Your task to perform on an android device: Open Chrome and go to the settings page Image 0: 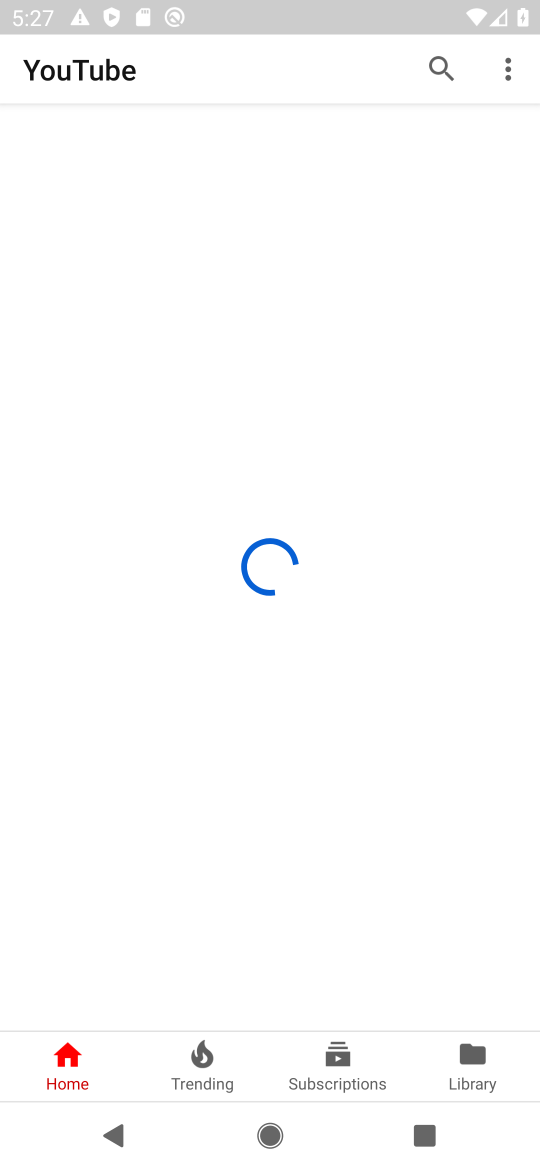
Step 0: press home button
Your task to perform on an android device: Open Chrome and go to the settings page Image 1: 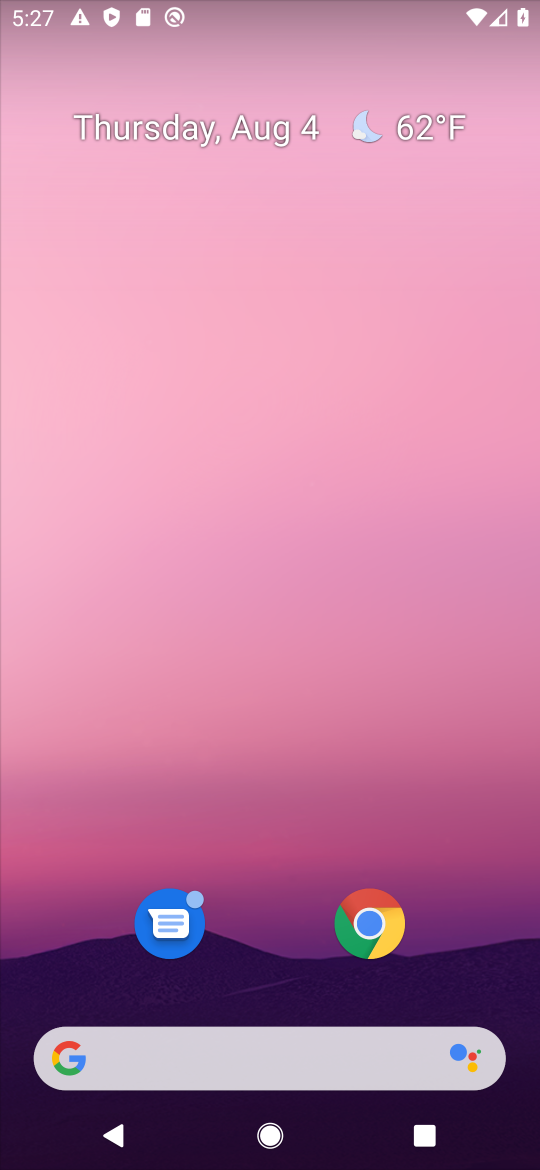
Step 1: click (359, 923)
Your task to perform on an android device: Open Chrome and go to the settings page Image 2: 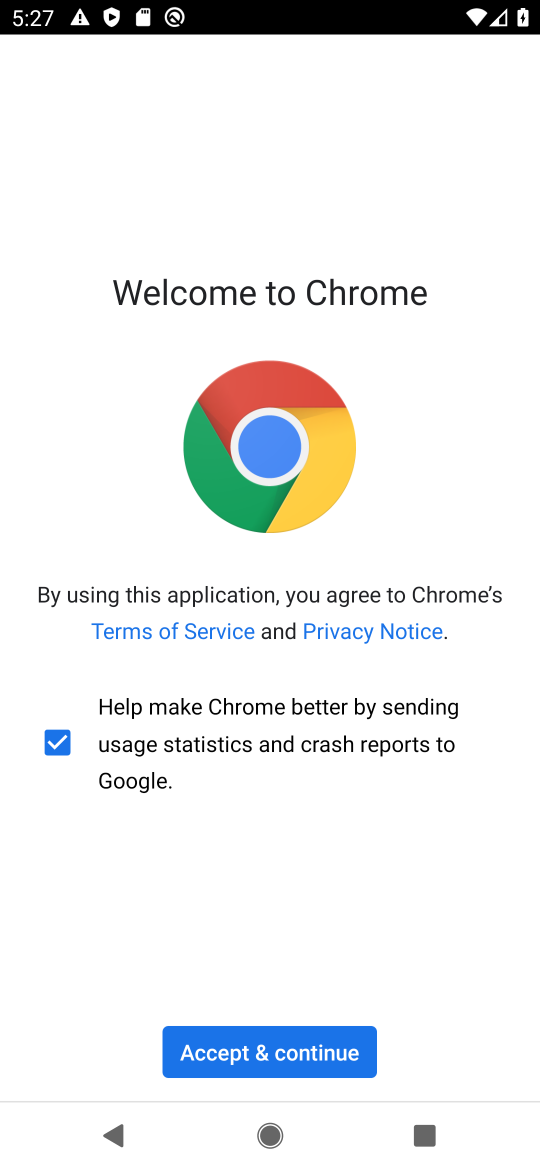
Step 2: click (323, 1055)
Your task to perform on an android device: Open Chrome and go to the settings page Image 3: 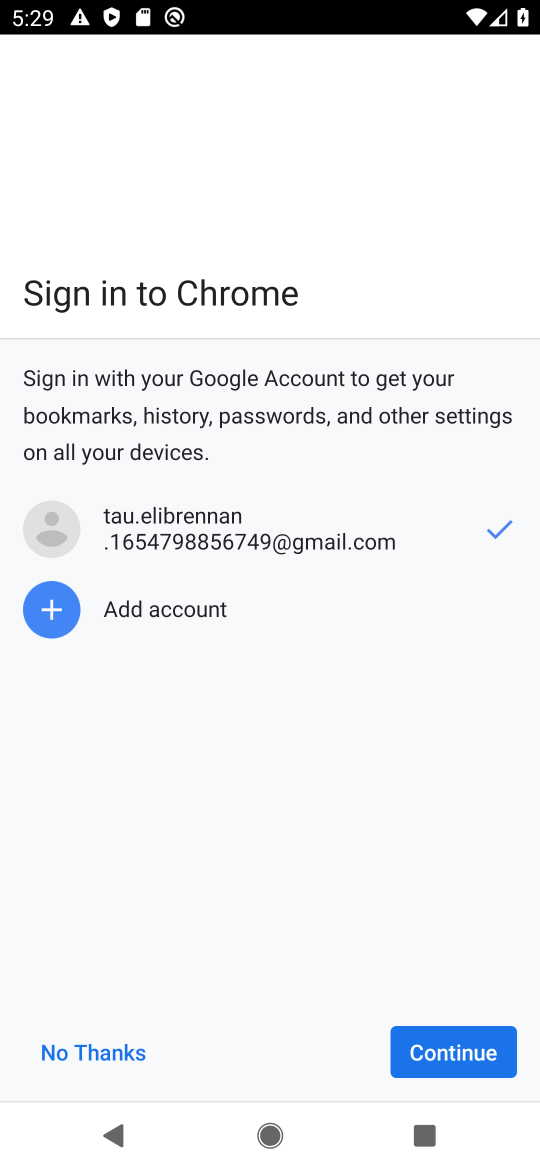
Step 3: press home button
Your task to perform on an android device: Open Chrome and go to the settings page Image 4: 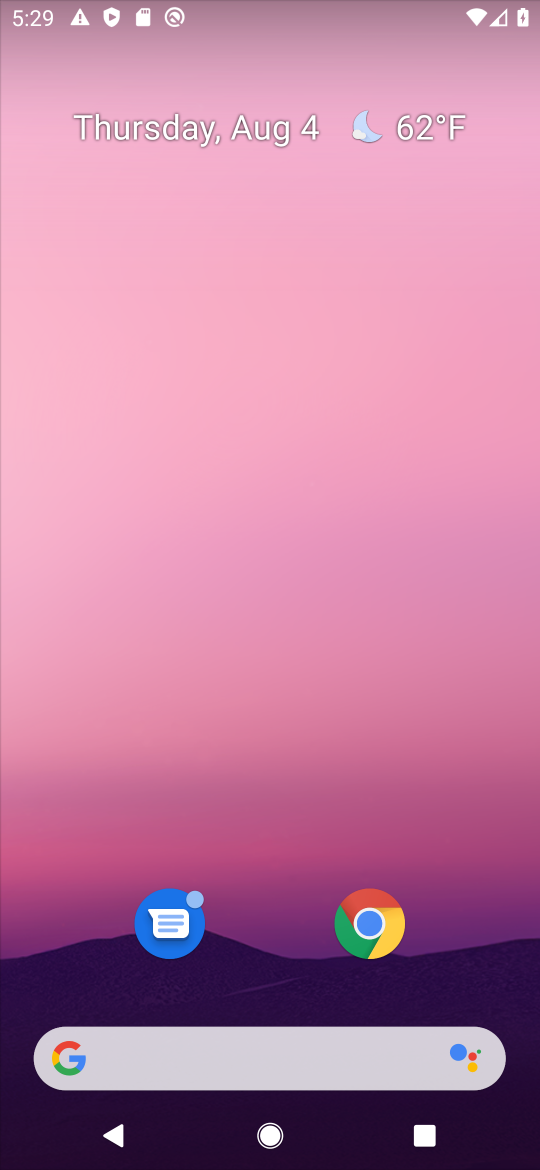
Step 4: click (397, 925)
Your task to perform on an android device: Open Chrome and go to the settings page Image 5: 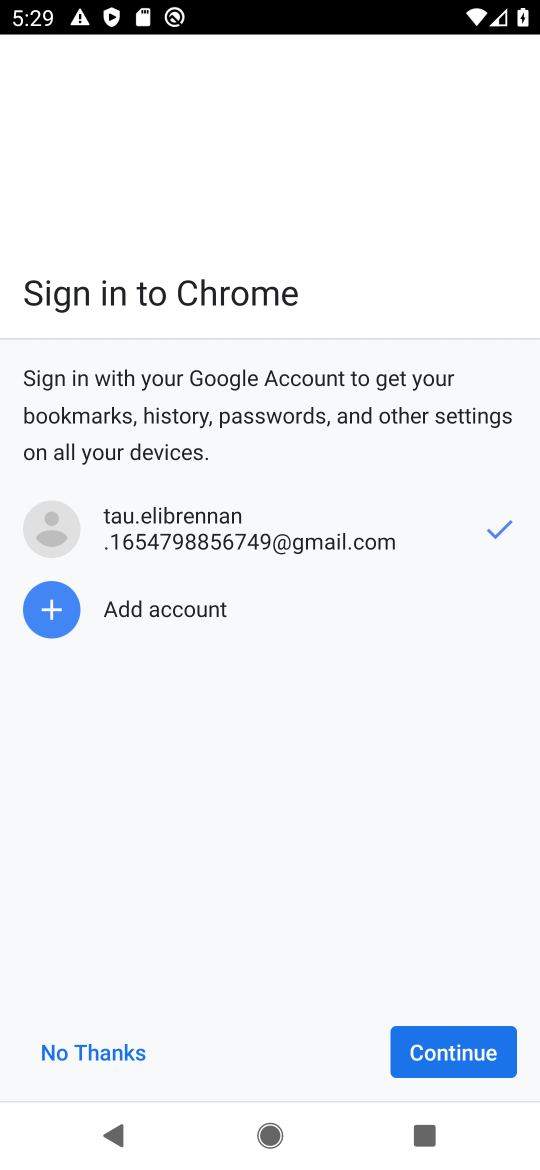
Step 5: click (455, 1046)
Your task to perform on an android device: Open Chrome and go to the settings page Image 6: 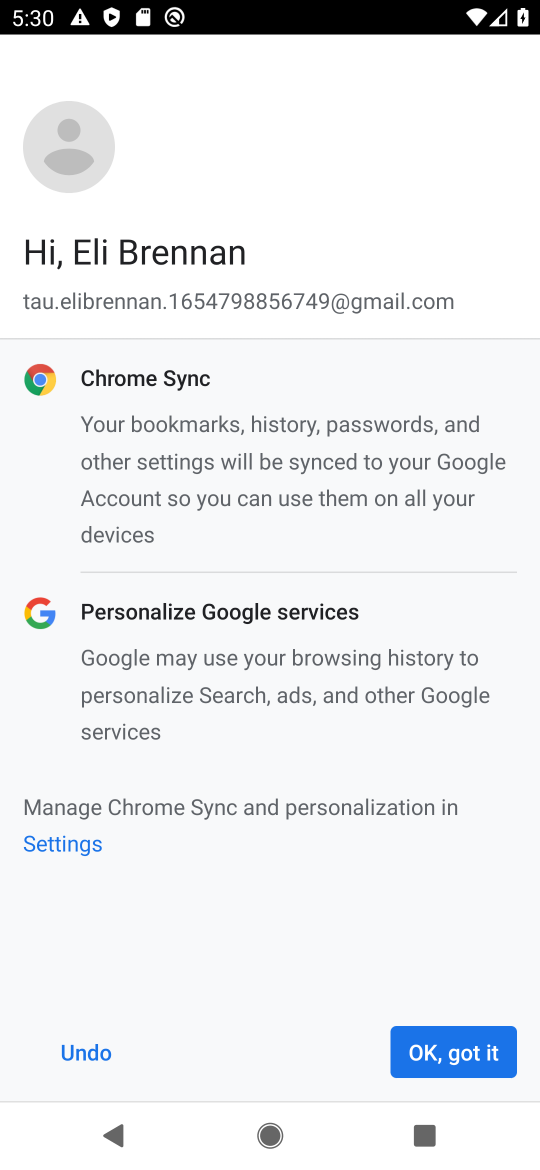
Step 6: click (472, 1067)
Your task to perform on an android device: Open Chrome and go to the settings page Image 7: 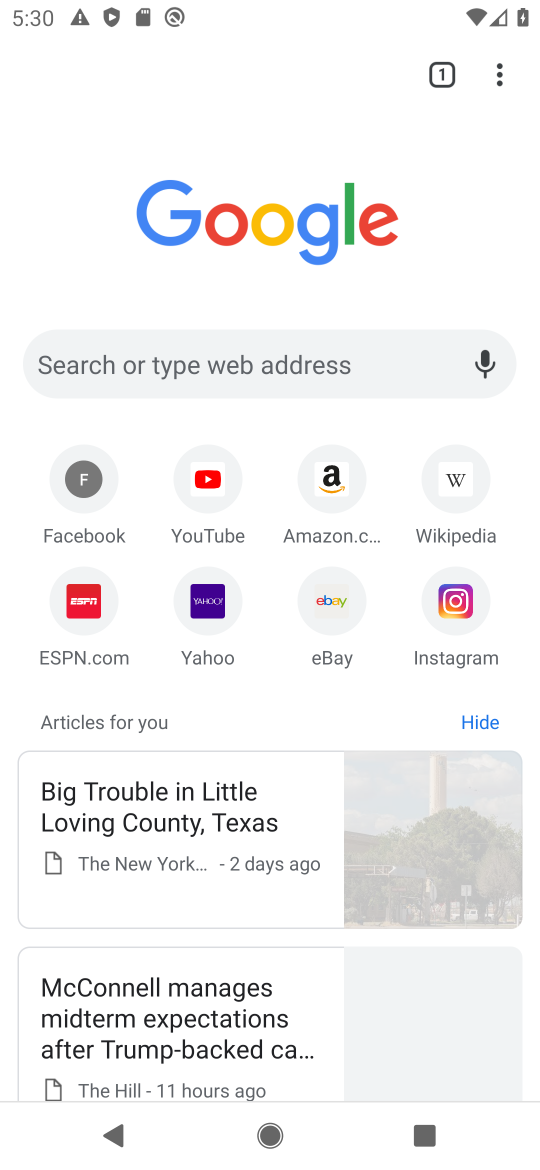
Step 7: click (501, 79)
Your task to perform on an android device: Open Chrome and go to the settings page Image 8: 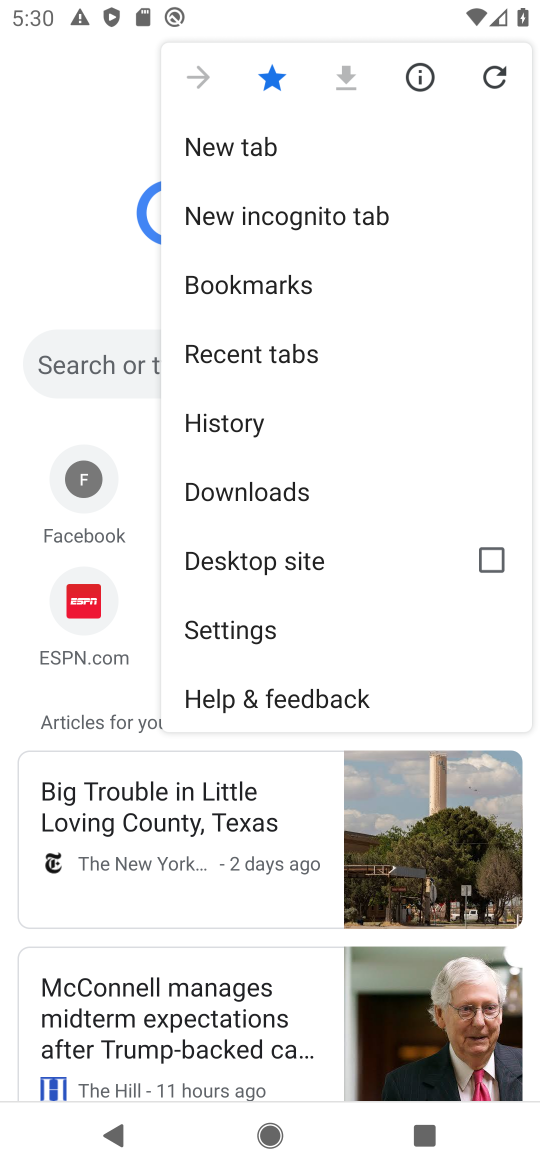
Step 8: click (226, 640)
Your task to perform on an android device: Open Chrome and go to the settings page Image 9: 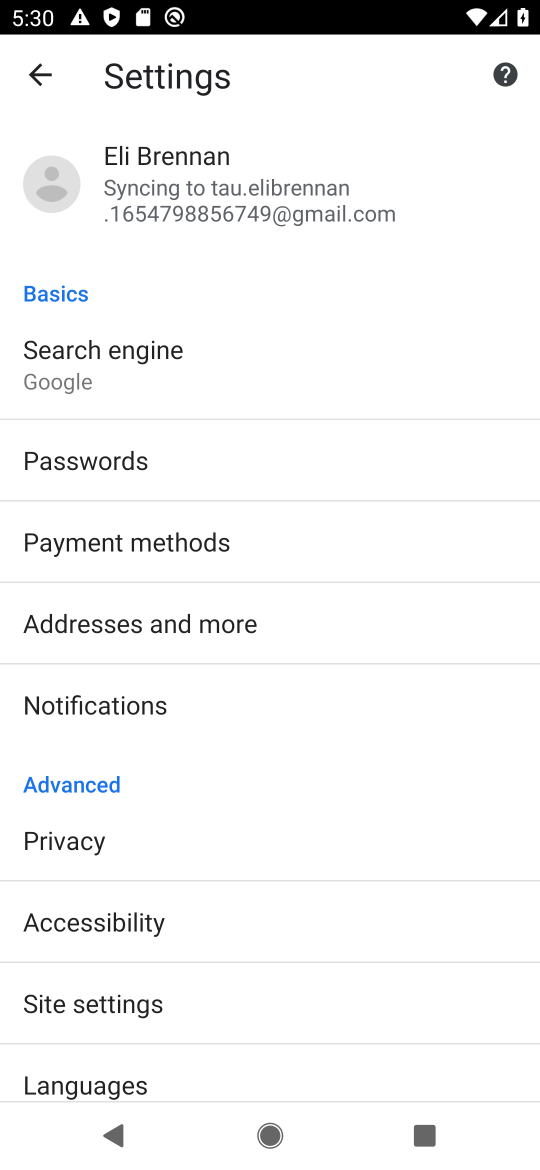
Step 9: task complete